Your task to perform on an android device: toggle sleep mode Image 0: 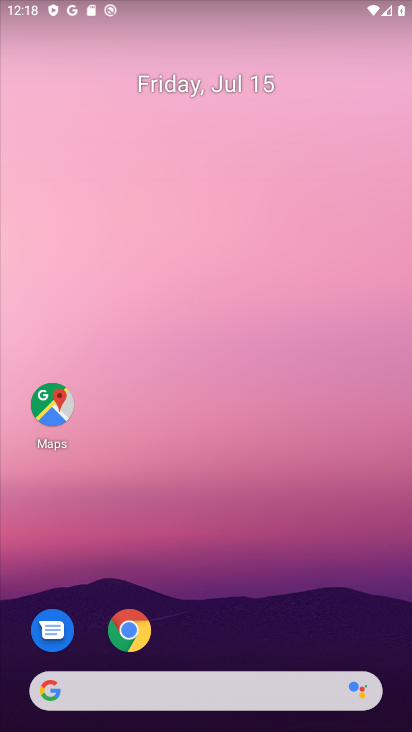
Step 0: drag from (335, 606) to (211, 123)
Your task to perform on an android device: toggle sleep mode Image 1: 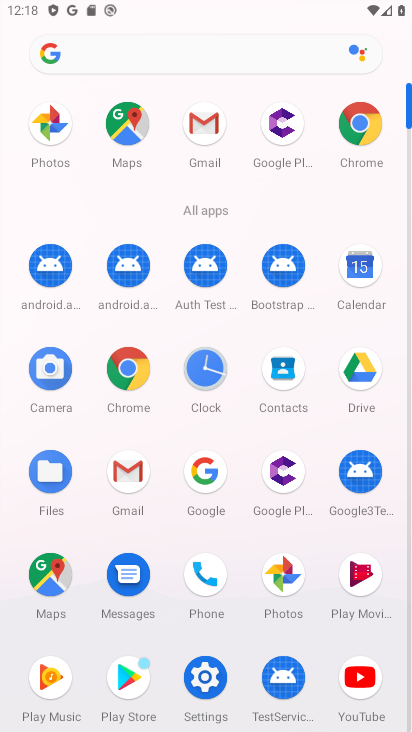
Step 1: click (209, 669)
Your task to perform on an android device: toggle sleep mode Image 2: 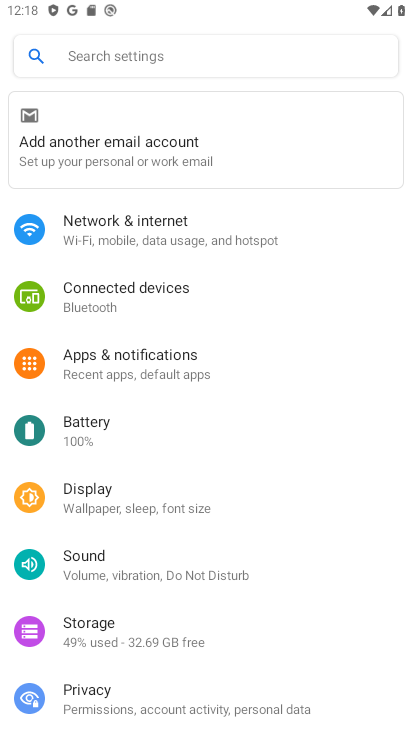
Step 2: click (159, 510)
Your task to perform on an android device: toggle sleep mode Image 3: 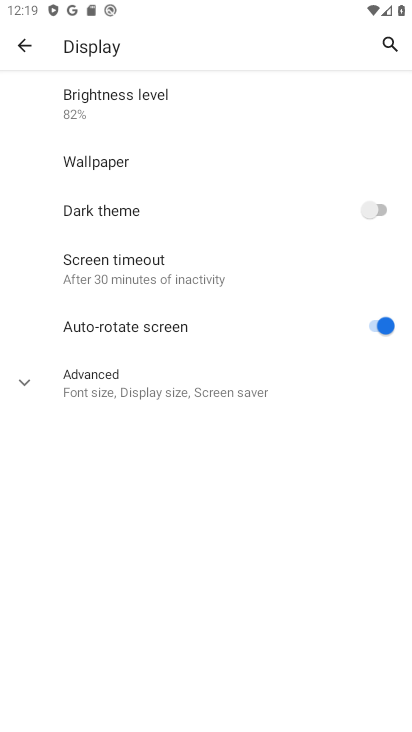
Step 3: task complete